Your task to perform on an android device: turn pop-ups off in chrome Image 0: 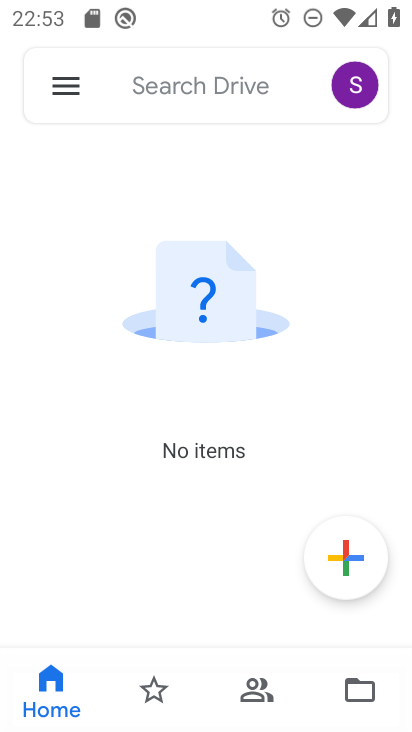
Step 0: press home button
Your task to perform on an android device: turn pop-ups off in chrome Image 1: 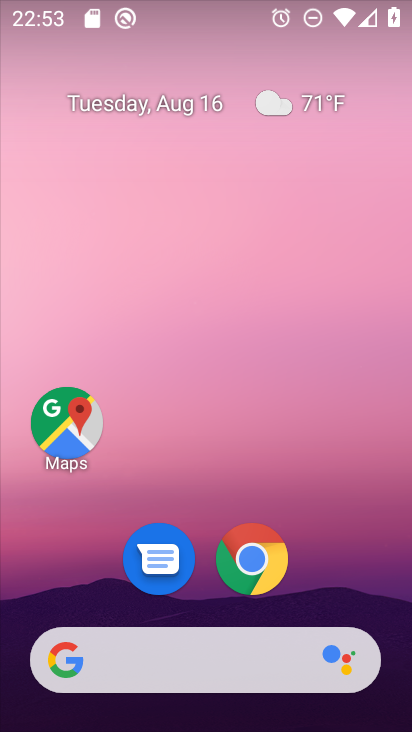
Step 1: click (253, 563)
Your task to perform on an android device: turn pop-ups off in chrome Image 2: 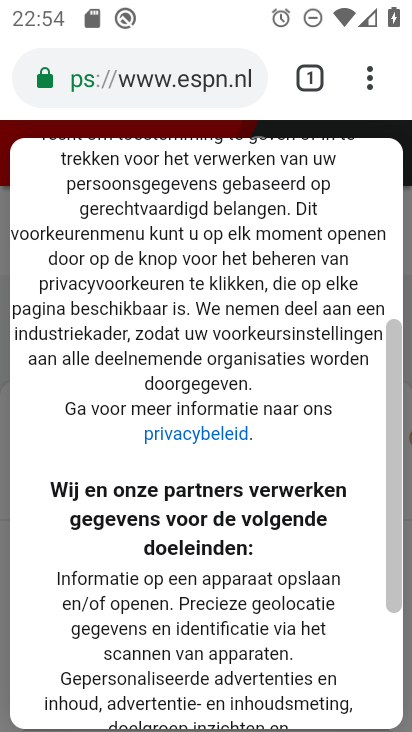
Step 2: click (384, 80)
Your task to perform on an android device: turn pop-ups off in chrome Image 3: 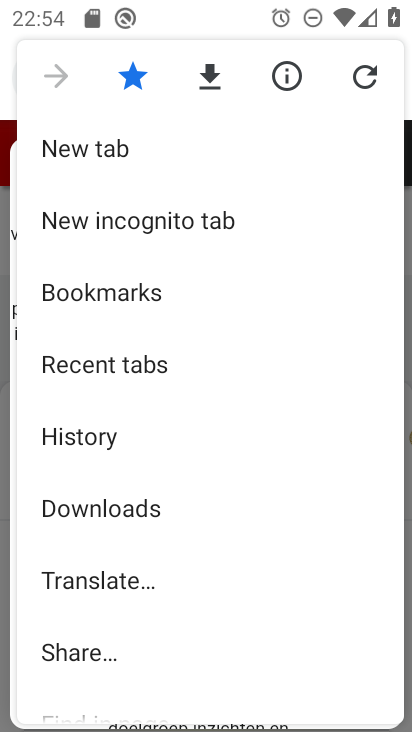
Step 3: drag from (181, 534) to (211, 444)
Your task to perform on an android device: turn pop-ups off in chrome Image 4: 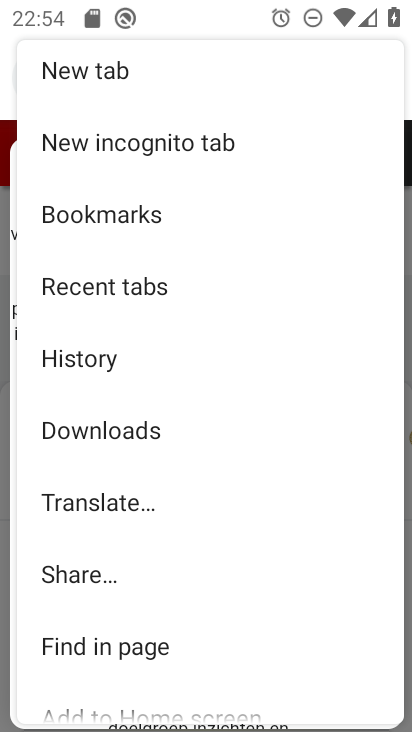
Step 4: drag from (159, 567) to (265, 442)
Your task to perform on an android device: turn pop-ups off in chrome Image 5: 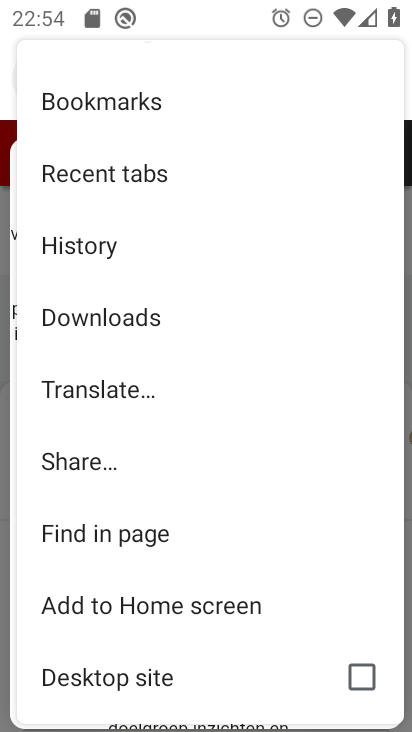
Step 5: drag from (172, 612) to (304, 465)
Your task to perform on an android device: turn pop-ups off in chrome Image 6: 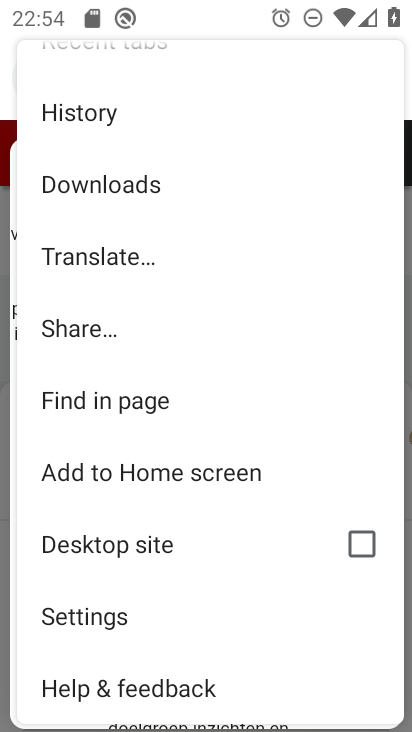
Step 6: click (96, 624)
Your task to perform on an android device: turn pop-ups off in chrome Image 7: 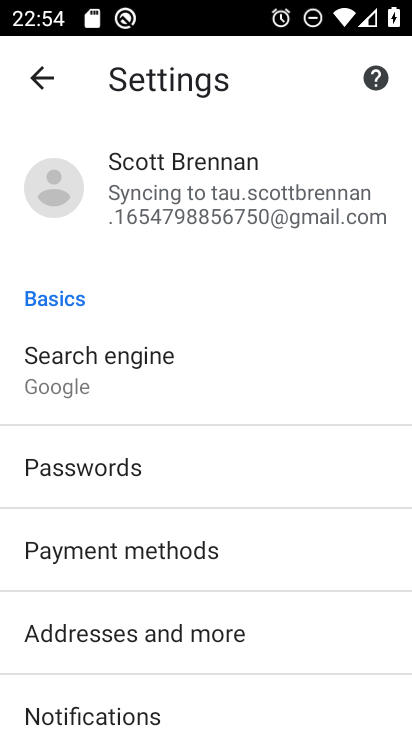
Step 7: drag from (151, 594) to (236, 448)
Your task to perform on an android device: turn pop-ups off in chrome Image 8: 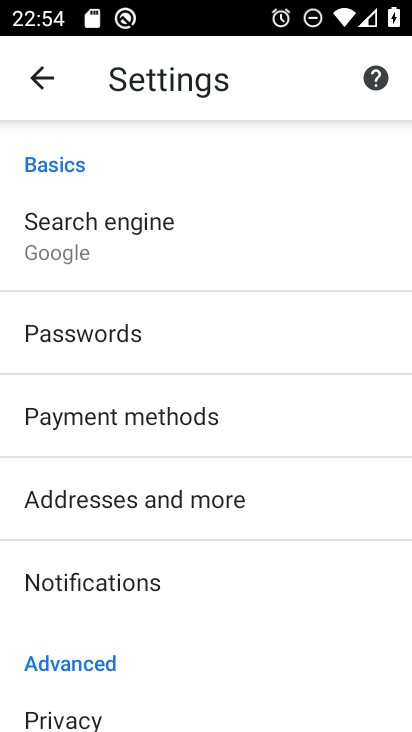
Step 8: drag from (162, 645) to (263, 487)
Your task to perform on an android device: turn pop-ups off in chrome Image 9: 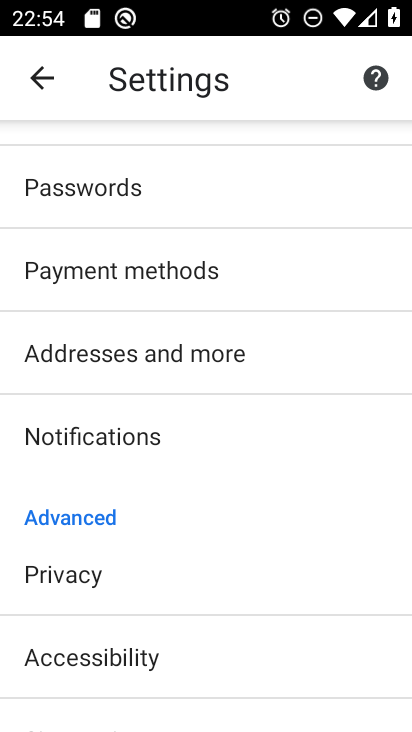
Step 9: drag from (117, 616) to (228, 473)
Your task to perform on an android device: turn pop-ups off in chrome Image 10: 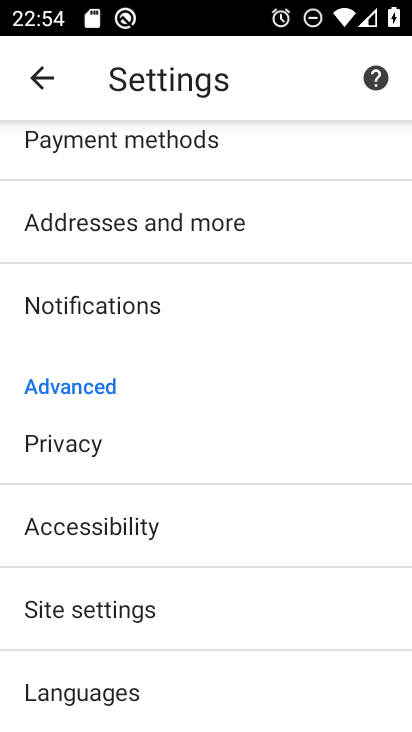
Step 10: drag from (163, 630) to (245, 515)
Your task to perform on an android device: turn pop-ups off in chrome Image 11: 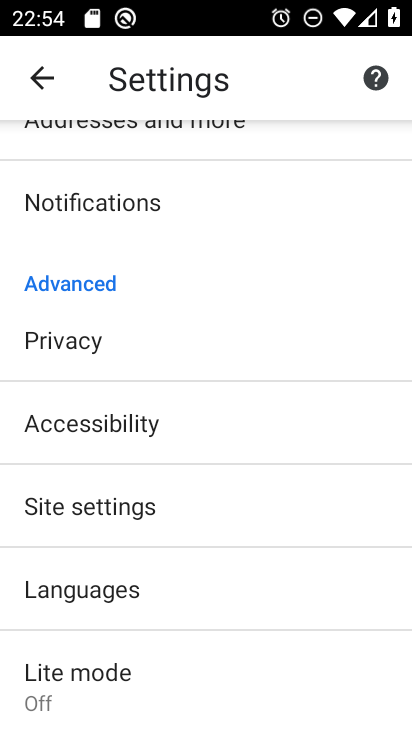
Step 11: click (139, 512)
Your task to perform on an android device: turn pop-ups off in chrome Image 12: 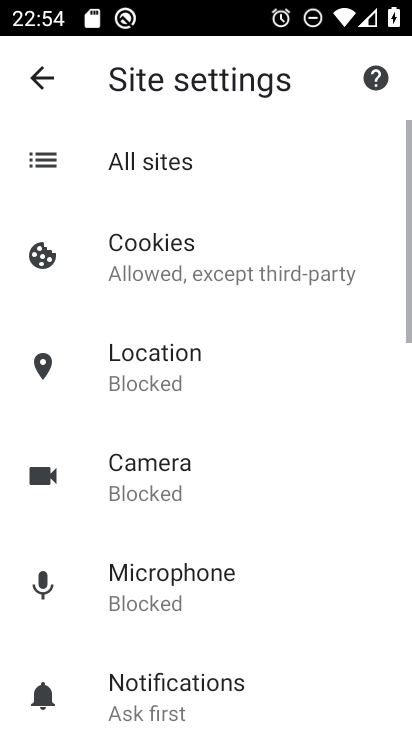
Step 12: drag from (189, 607) to (256, 469)
Your task to perform on an android device: turn pop-ups off in chrome Image 13: 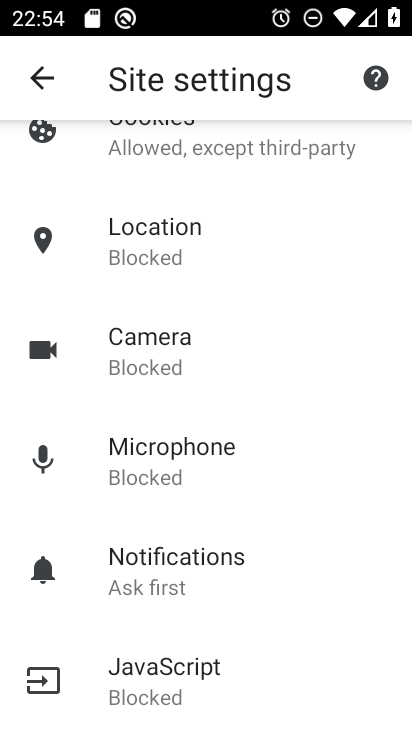
Step 13: drag from (209, 627) to (279, 512)
Your task to perform on an android device: turn pop-ups off in chrome Image 14: 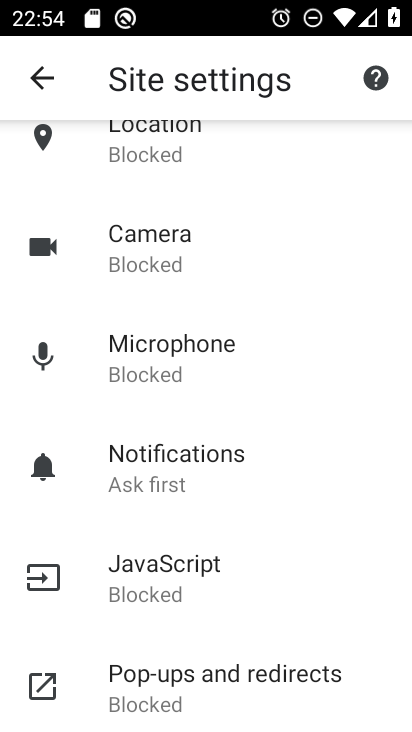
Step 14: drag from (204, 635) to (278, 481)
Your task to perform on an android device: turn pop-ups off in chrome Image 15: 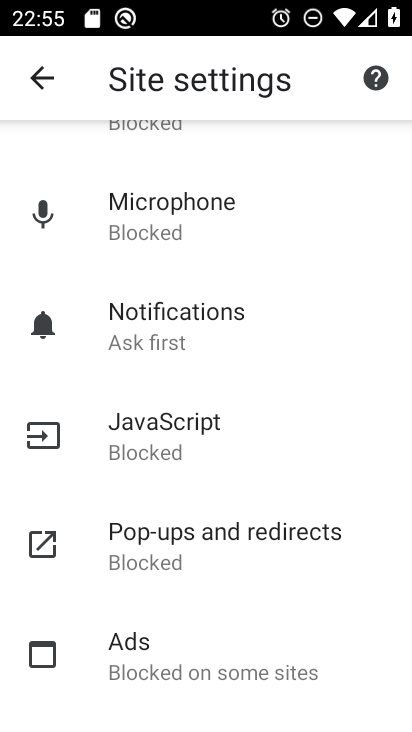
Step 15: click (182, 560)
Your task to perform on an android device: turn pop-ups off in chrome Image 16: 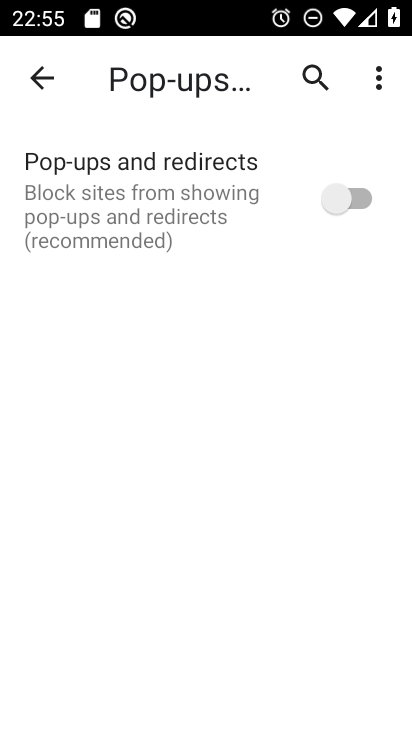
Step 16: task complete